Your task to perform on an android device: toggle wifi Image 0: 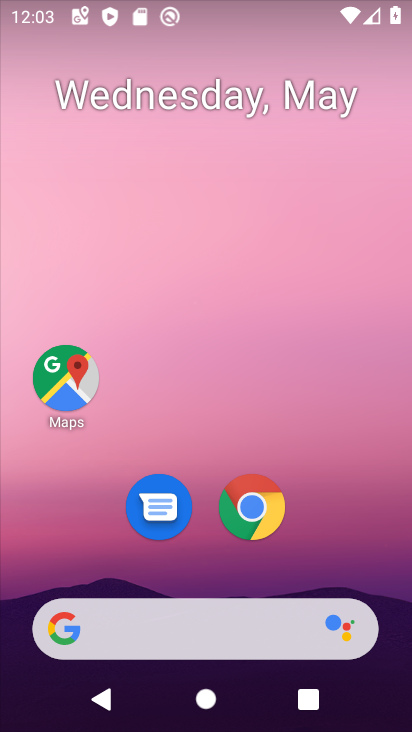
Step 0: drag from (314, 500) to (344, 183)
Your task to perform on an android device: toggle wifi Image 1: 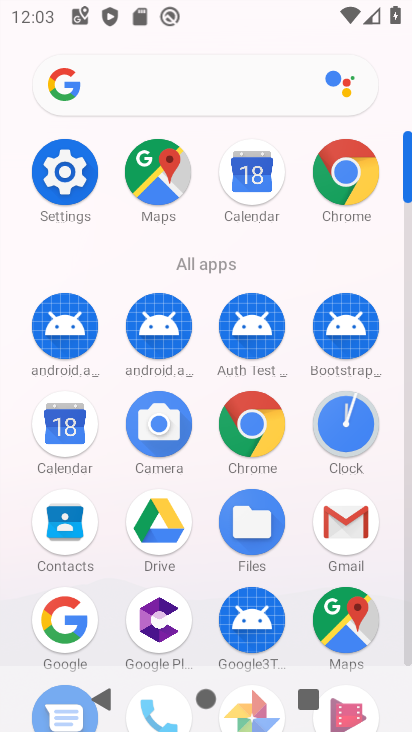
Step 1: click (80, 174)
Your task to perform on an android device: toggle wifi Image 2: 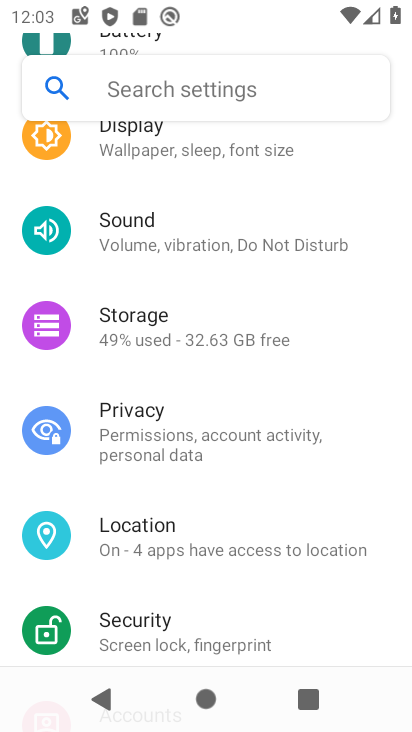
Step 2: drag from (221, 181) to (203, 616)
Your task to perform on an android device: toggle wifi Image 3: 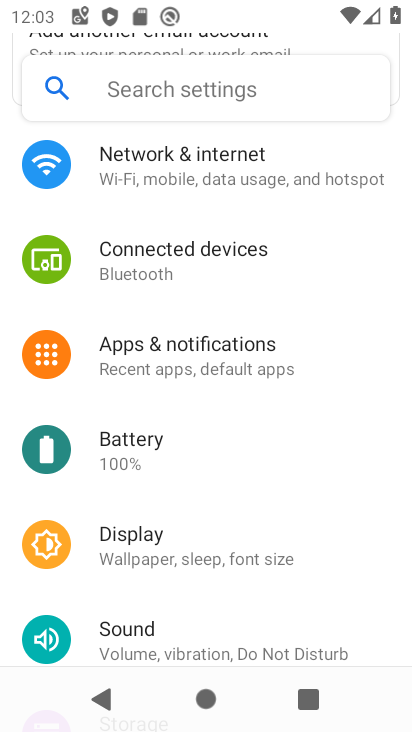
Step 3: click (229, 153)
Your task to perform on an android device: toggle wifi Image 4: 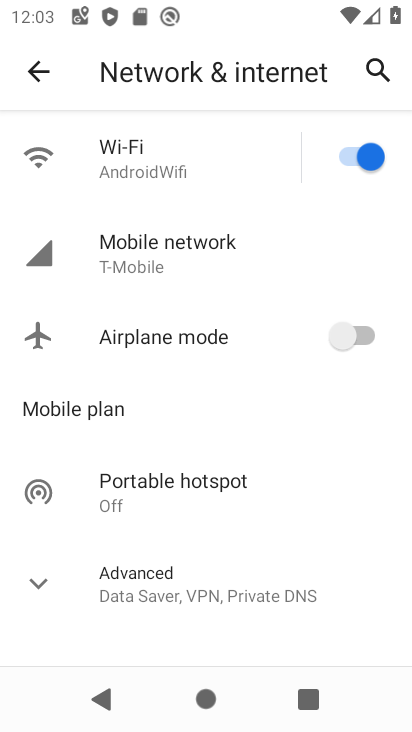
Step 4: click (169, 150)
Your task to perform on an android device: toggle wifi Image 5: 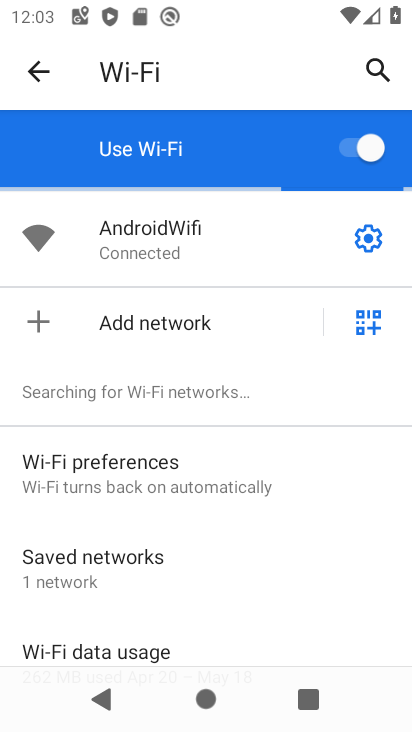
Step 5: task complete